Your task to perform on an android device: Add "energizer triple a" to the cart on newegg Image 0: 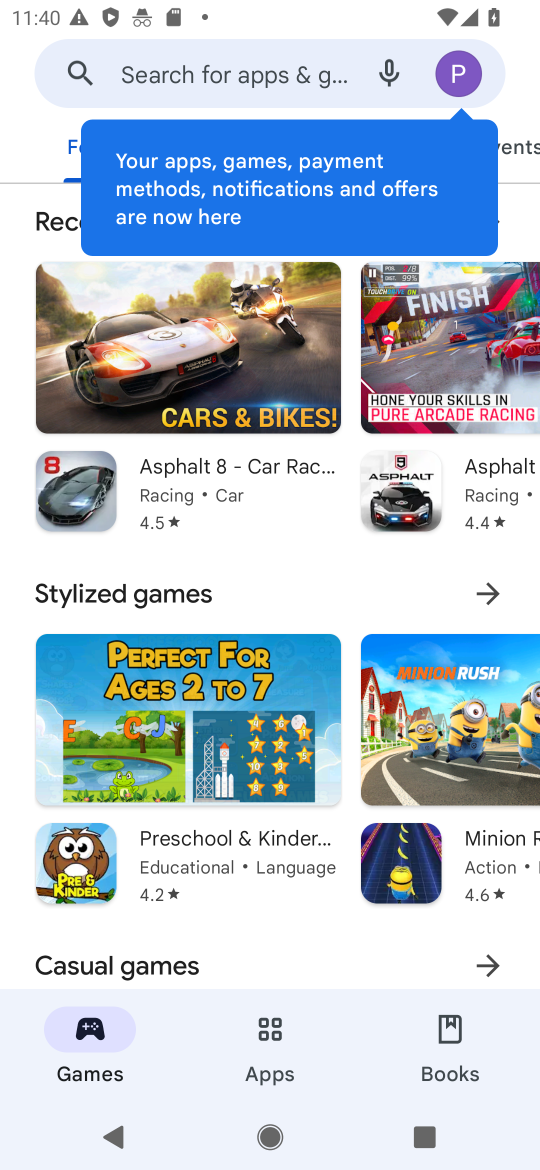
Step 0: press home button
Your task to perform on an android device: Add "energizer triple a" to the cart on newegg Image 1: 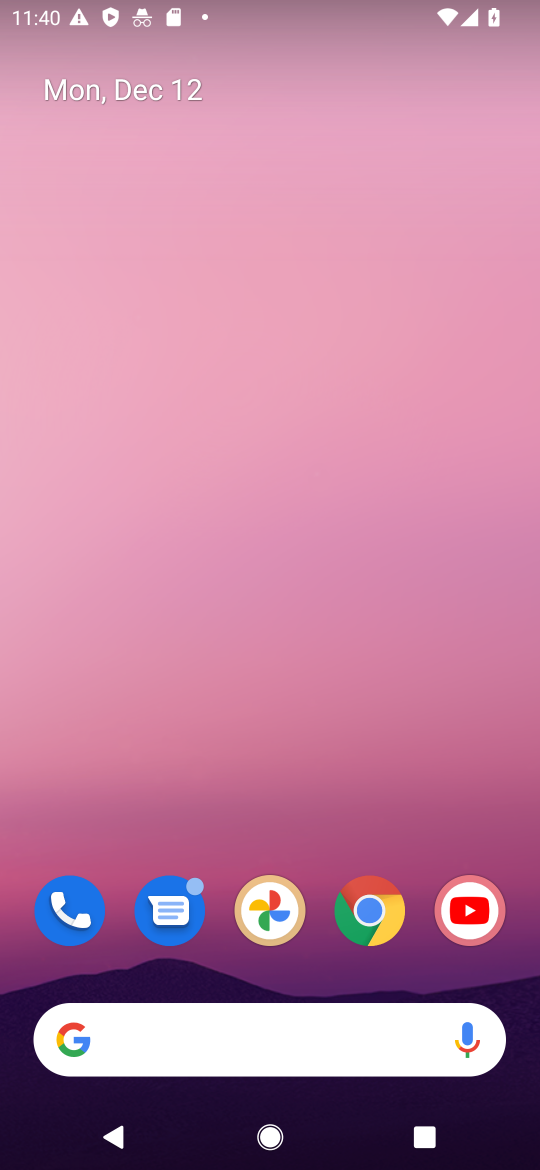
Step 1: click (375, 914)
Your task to perform on an android device: Add "energizer triple a" to the cart on newegg Image 2: 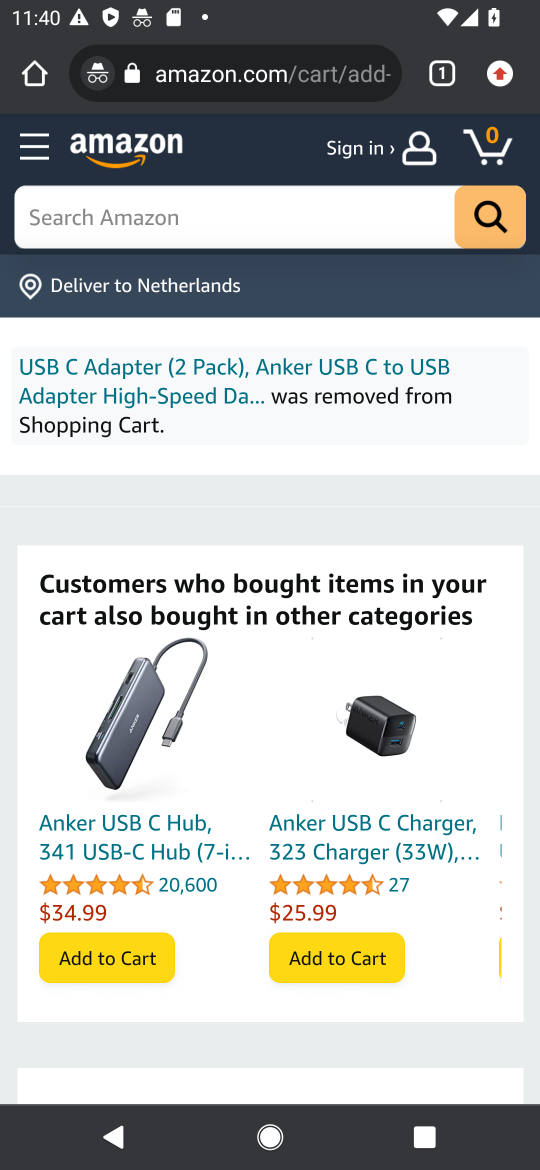
Step 2: click (228, 74)
Your task to perform on an android device: Add "energizer triple a" to the cart on newegg Image 3: 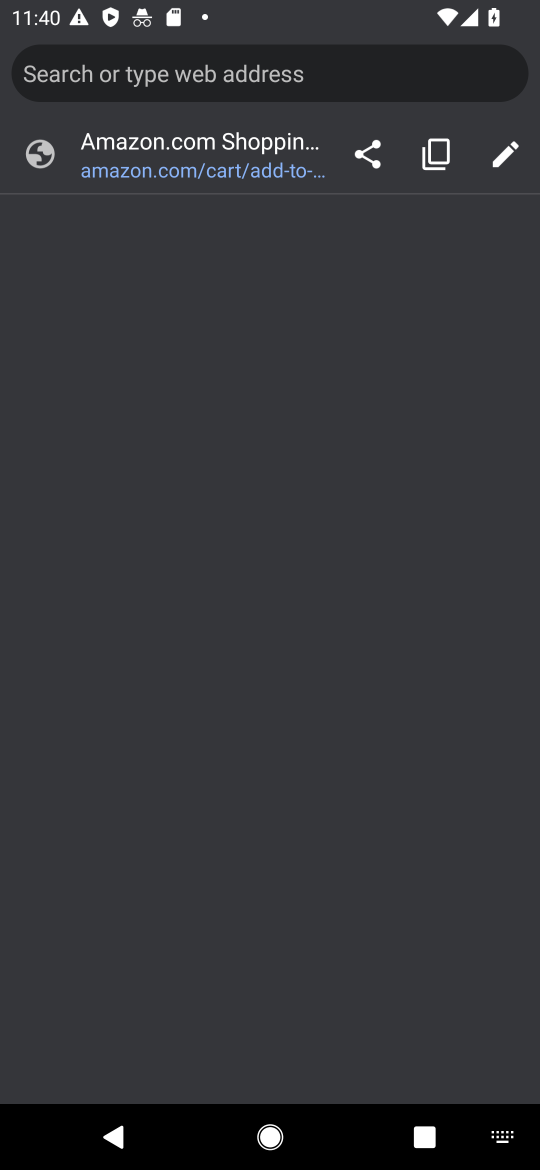
Step 3: type "NEWEGG"
Your task to perform on an android device: Add "energizer triple a" to the cart on newegg Image 4: 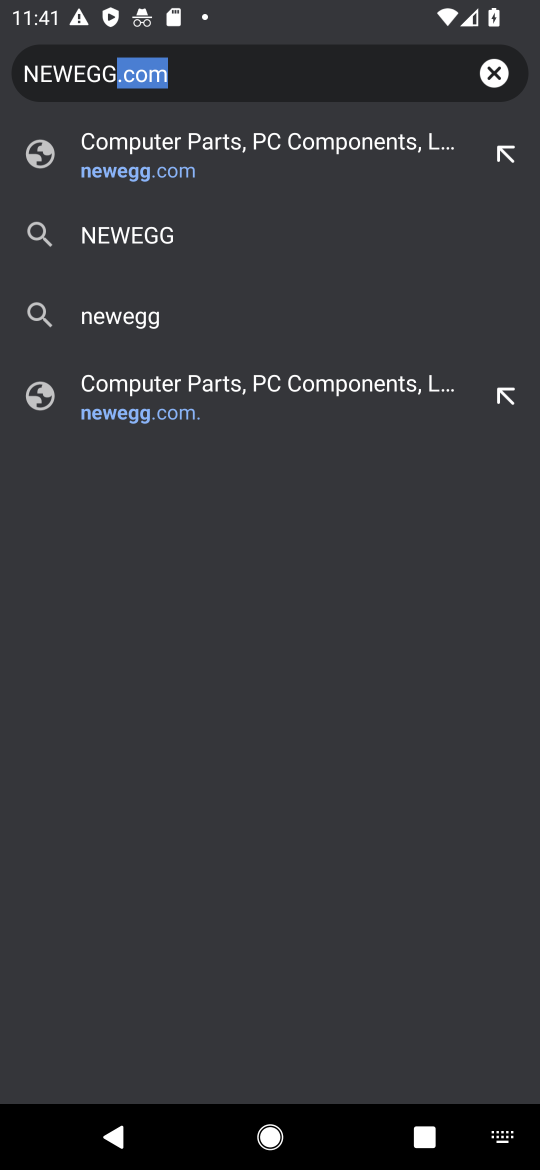
Step 4: click (253, 160)
Your task to perform on an android device: Add "energizer triple a" to the cart on newegg Image 5: 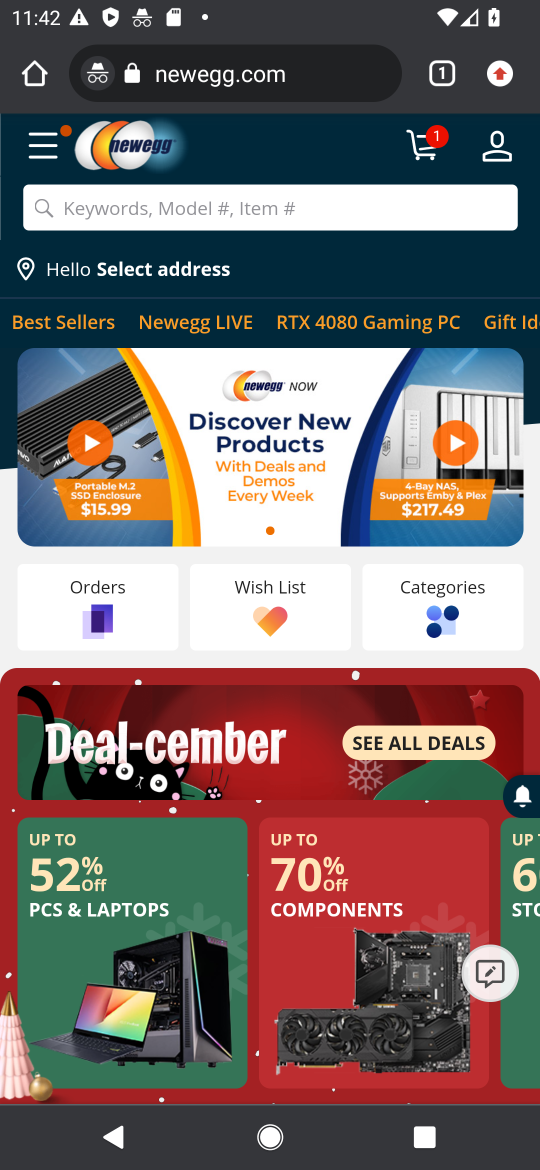
Step 5: click (221, 213)
Your task to perform on an android device: Add "energizer triple a" to the cart on newegg Image 6: 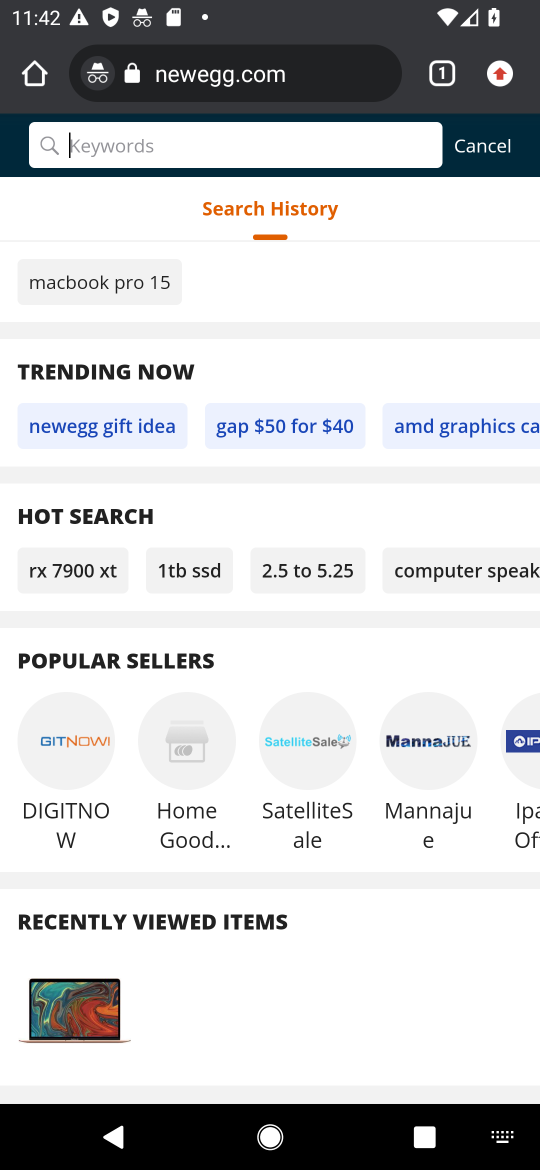
Step 6: type "energizer triple a"
Your task to perform on an android device: Add "energizer triple a" to the cart on newegg Image 7: 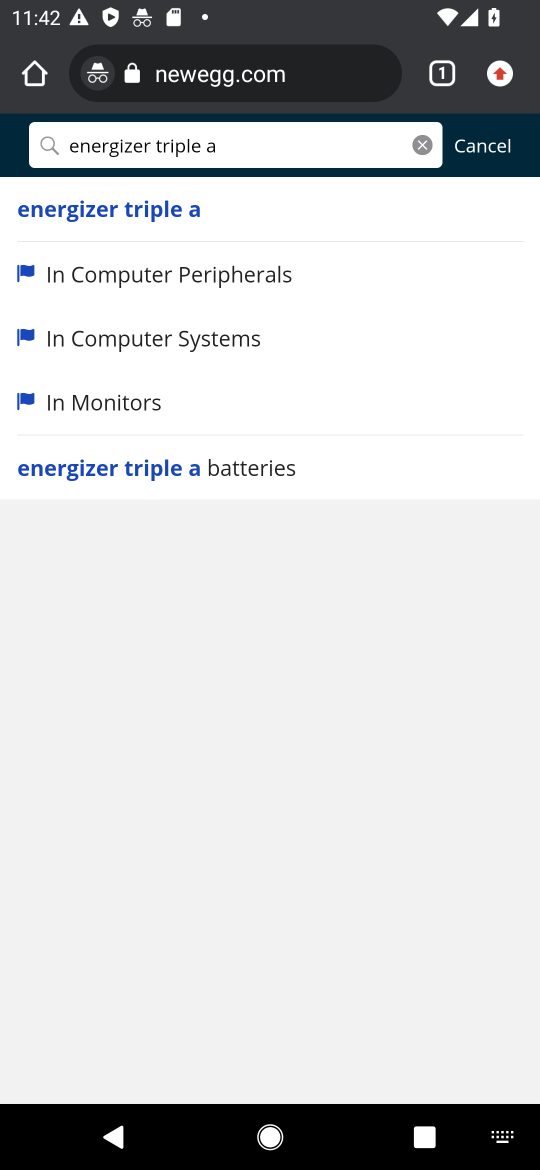
Step 7: click (91, 210)
Your task to perform on an android device: Add "energizer triple a" to the cart on newegg Image 8: 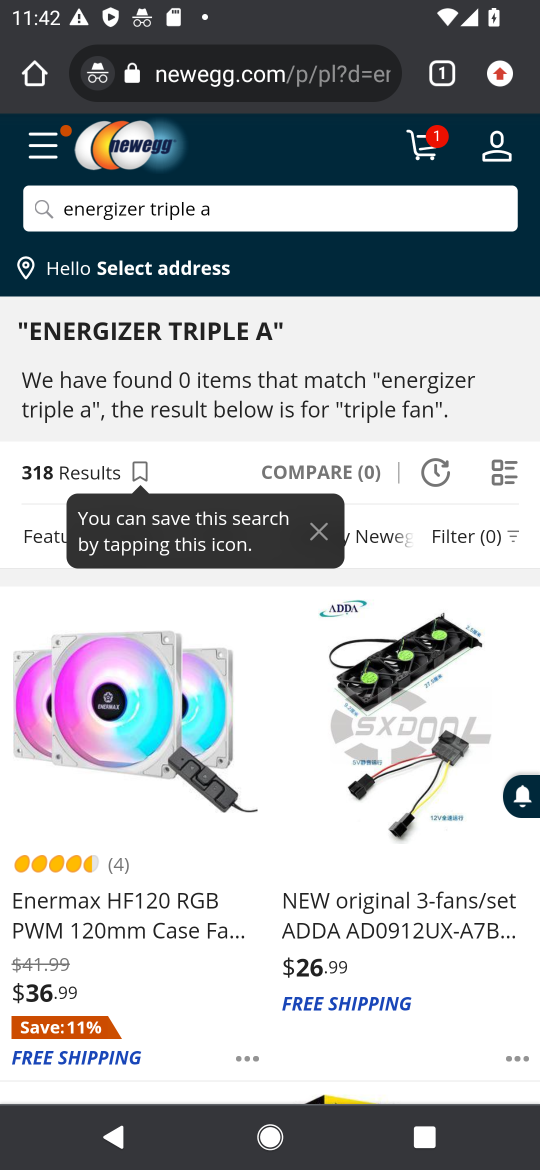
Step 8: click (182, 773)
Your task to perform on an android device: Add "energizer triple a" to the cart on newegg Image 9: 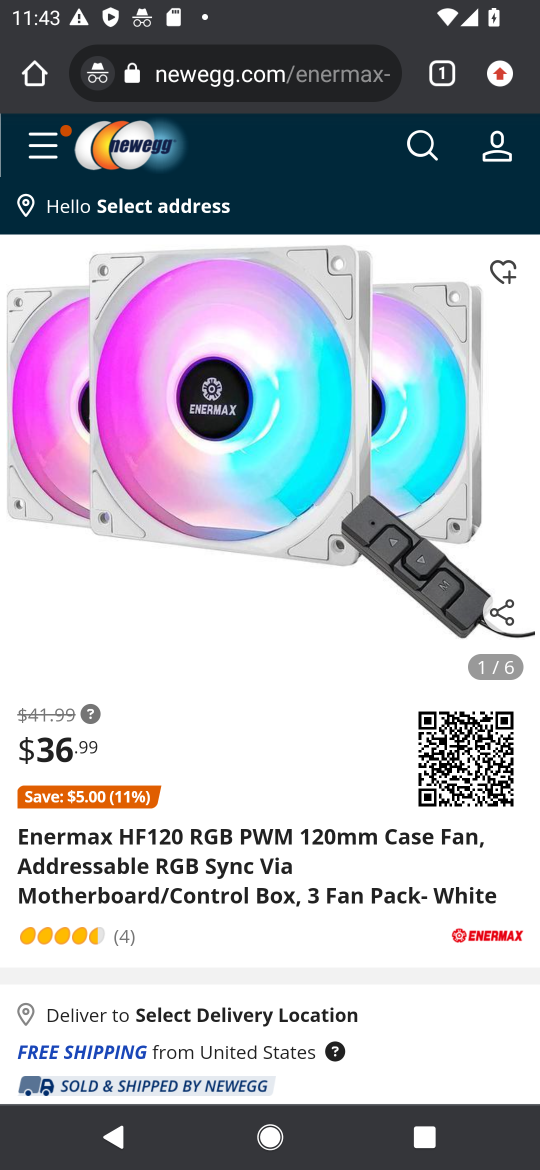
Step 9: click (271, 1070)
Your task to perform on an android device: Add "energizer triple a" to the cart on newegg Image 10: 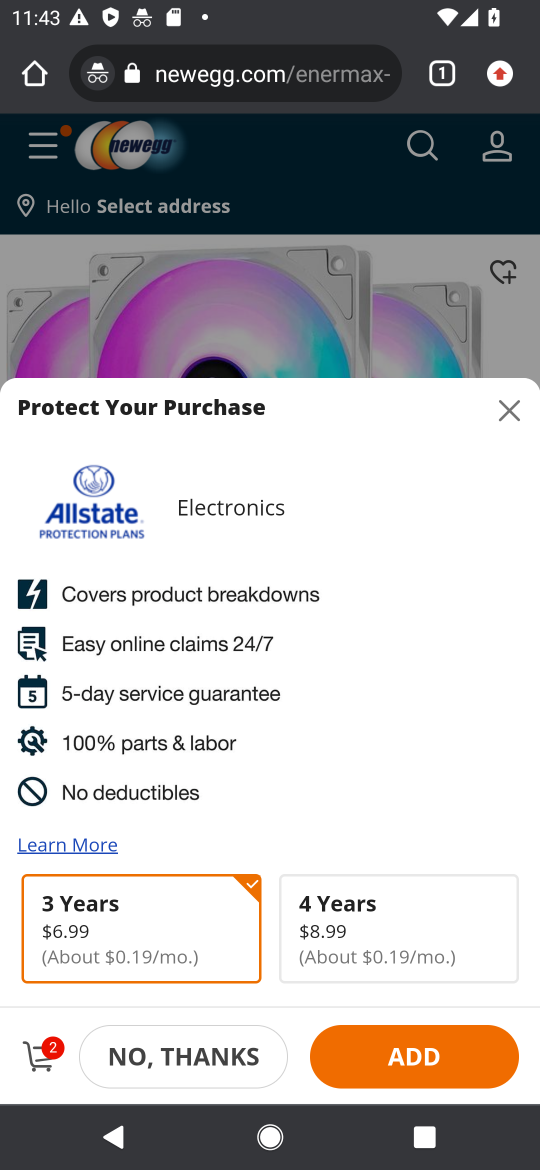
Step 10: task complete